Your task to perform on an android device: manage bookmarks in the chrome app Image 0: 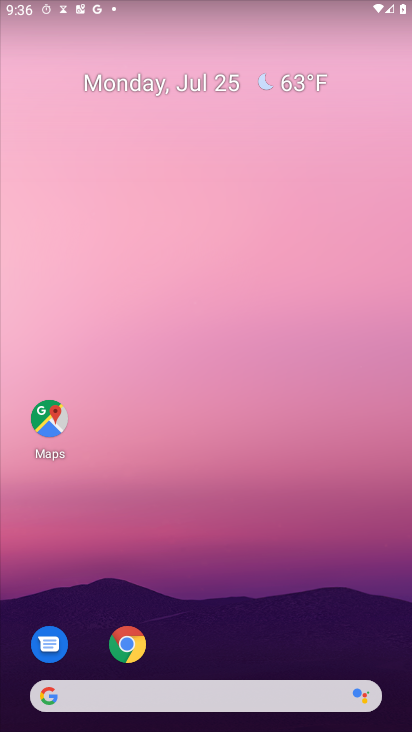
Step 0: drag from (245, 652) to (186, 227)
Your task to perform on an android device: manage bookmarks in the chrome app Image 1: 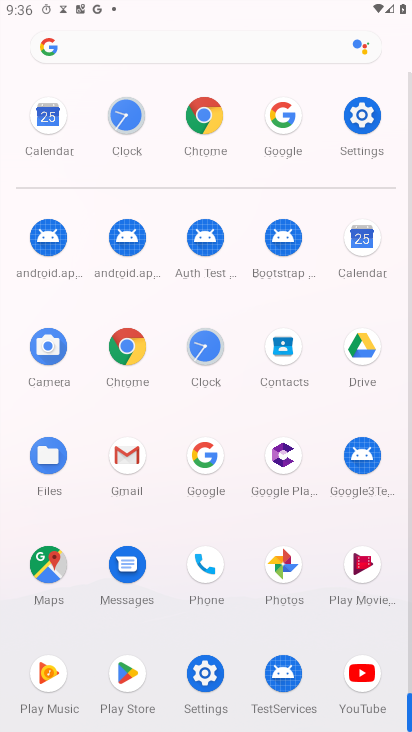
Step 1: click (199, 104)
Your task to perform on an android device: manage bookmarks in the chrome app Image 2: 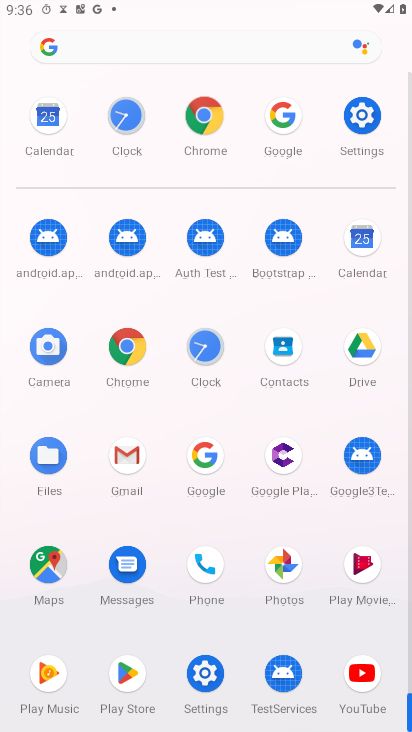
Step 2: click (198, 104)
Your task to perform on an android device: manage bookmarks in the chrome app Image 3: 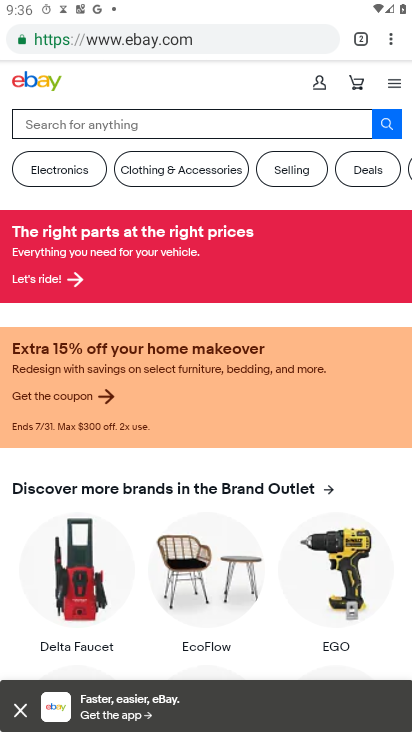
Step 3: click (386, 39)
Your task to perform on an android device: manage bookmarks in the chrome app Image 4: 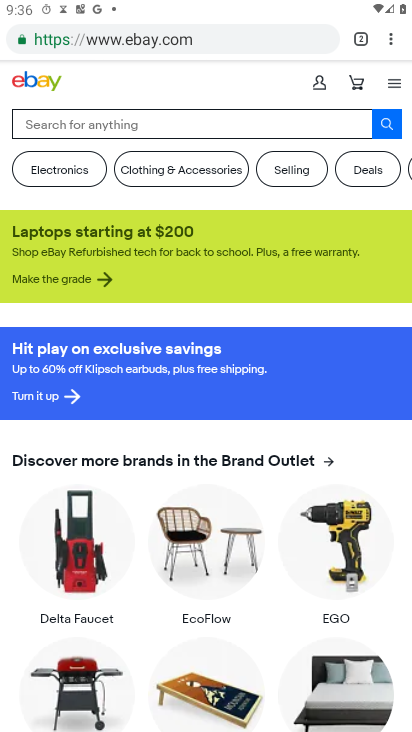
Step 4: drag from (388, 37) to (284, 154)
Your task to perform on an android device: manage bookmarks in the chrome app Image 5: 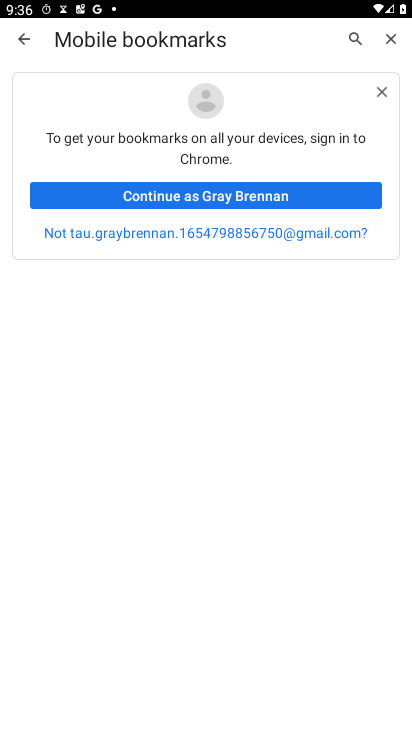
Step 5: click (380, 86)
Your task to perform on an android device: manage bookmarks in the chrome app Image 6: 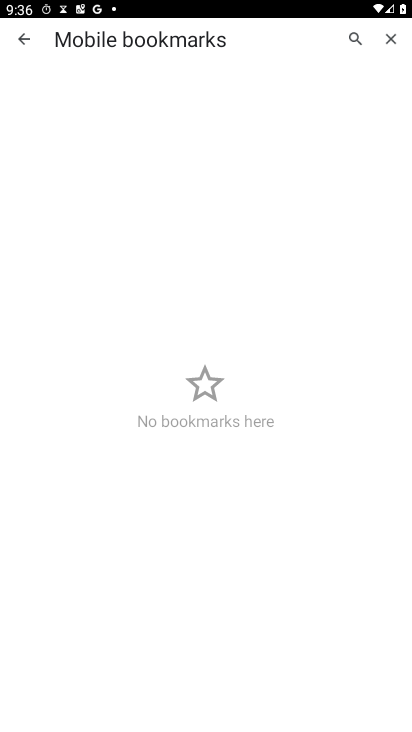
Step 6: task complete